Your task to perform on an android device: check android version Image 0: 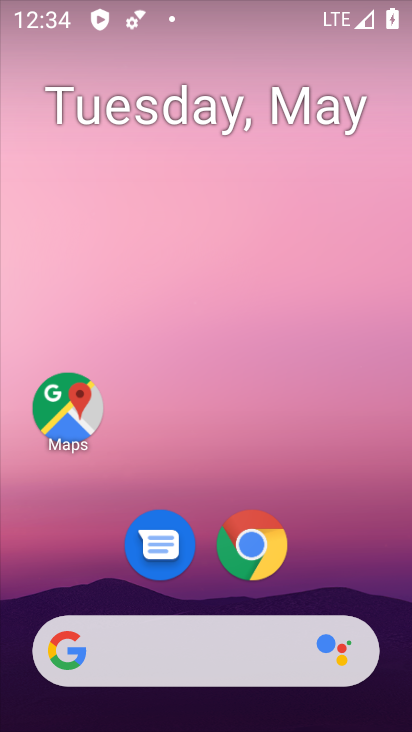
Step 0: drag from (363, 553) to (358, 169)
Your task to perform on an android device: check android version Image 1: 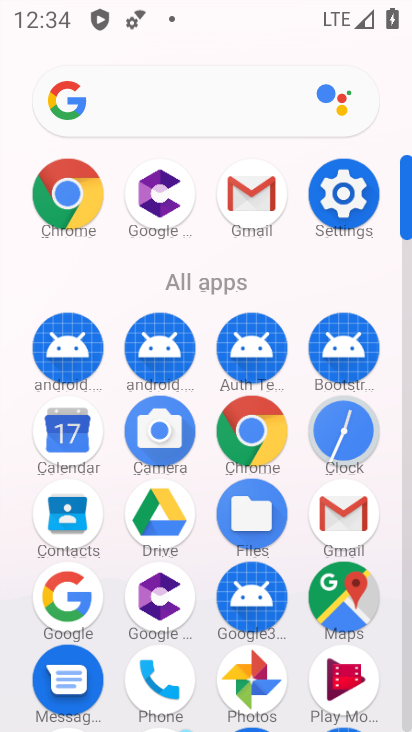
Step 1: click (334, 207)
Your task to perform on an android device: check android version Image 2: 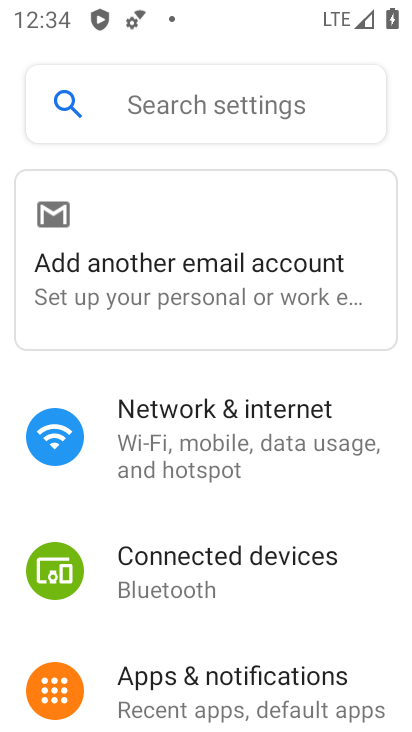
Step 2: drag from (286, 656) to (290, 301)
Your task to perform on an android device: check android version Image 3: 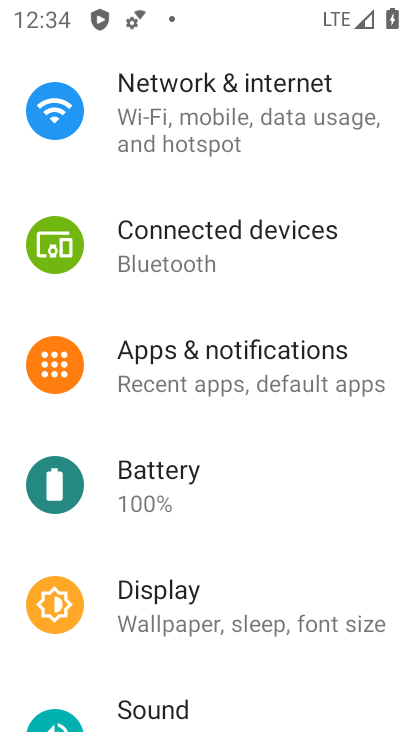
Step 3: drag from (304, 652) to (314, 232)
Your task to perform on an android device: check android version Image 4: 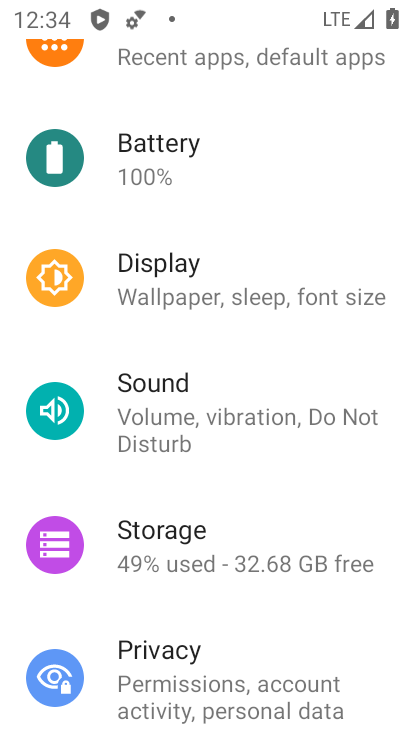
Step 4: drag from (329, 624) to (291, 207)
Your task to perform on an android device: check android version Image 5: 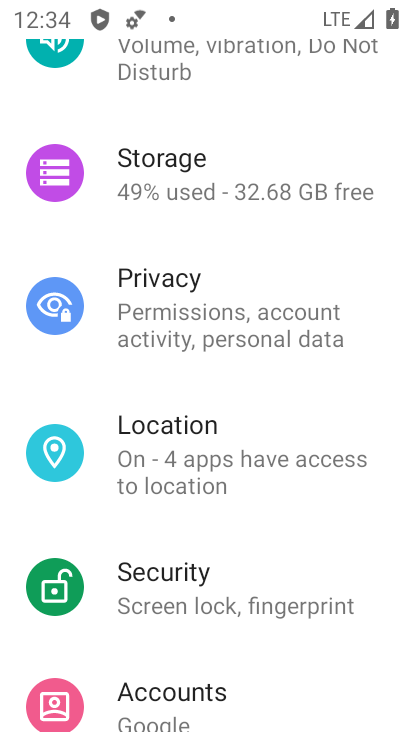
Step 5: drag from (235, 649) to (269, 219)
Your task to perform on an android device: check android version Image 6: 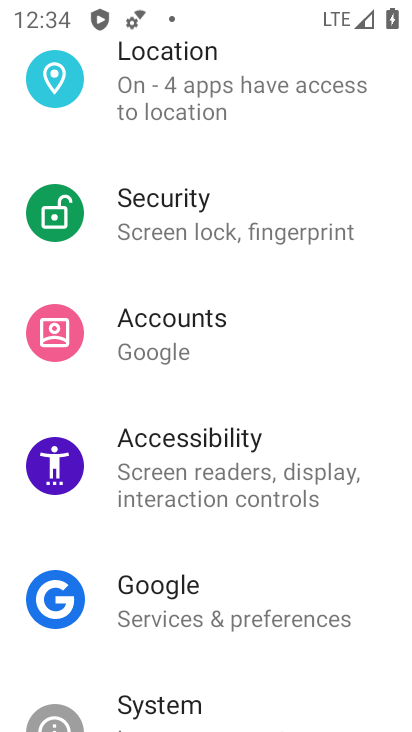
Step 6: drag from (261, 637) to (290, 273)
Your task to perform on an android device: check android version Image 7: 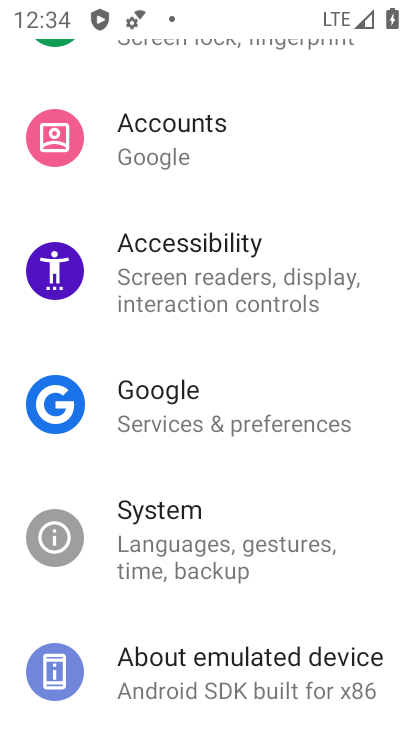
Step 7: click (245, 644)
Your task to perform on an android device: check android version Image 8: 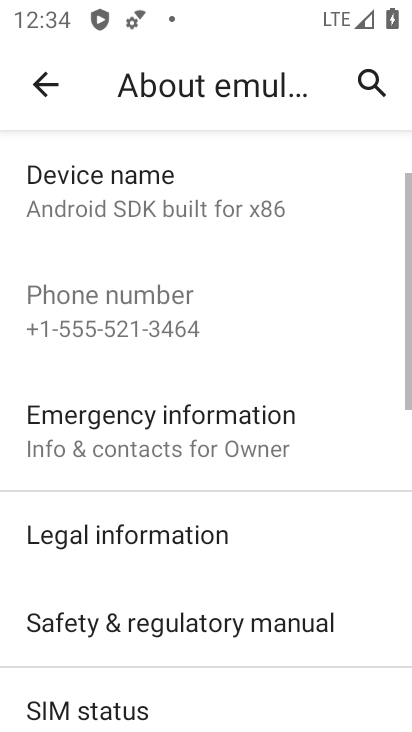
Step 8: drag from (298, 523) to (314, 197)
Your task to perform on an android device: check android version Image 9: 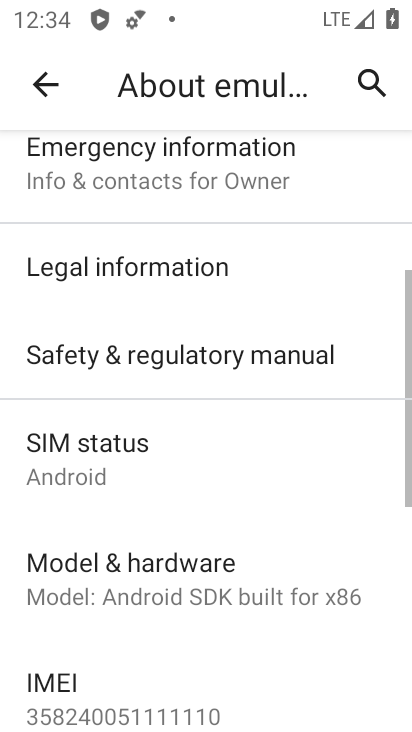
Step 9: drag from (266, 647) to (302, 268)
Your task to perform on an android device: check android version Image 10: 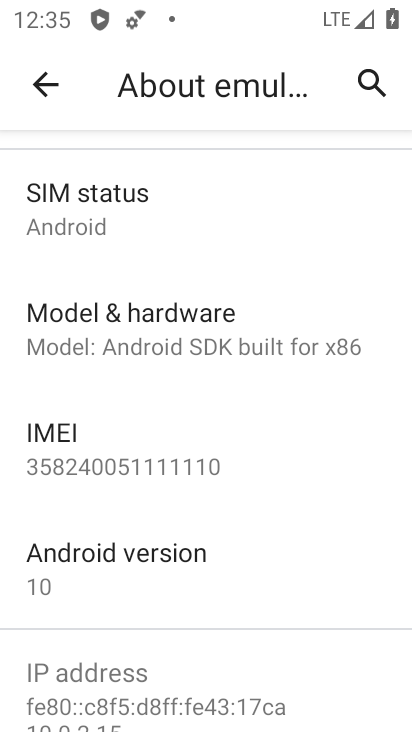
Step 10: click (154, 556)
Your task to perform on an android device: check android version Image 11: 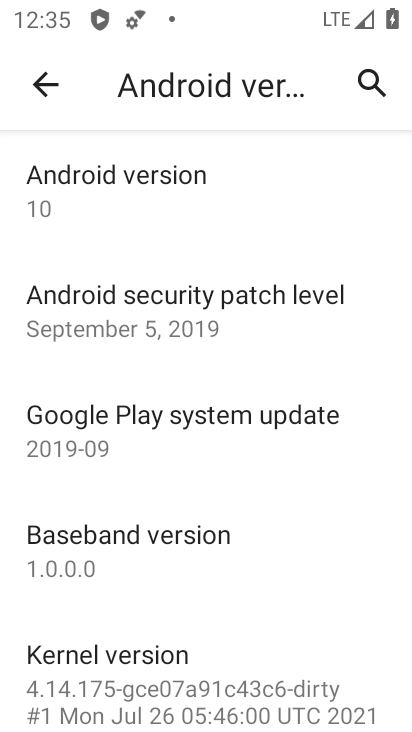
Step 11: task complete